Your task to perform on an android device: Go to accessibility settings Image 0: 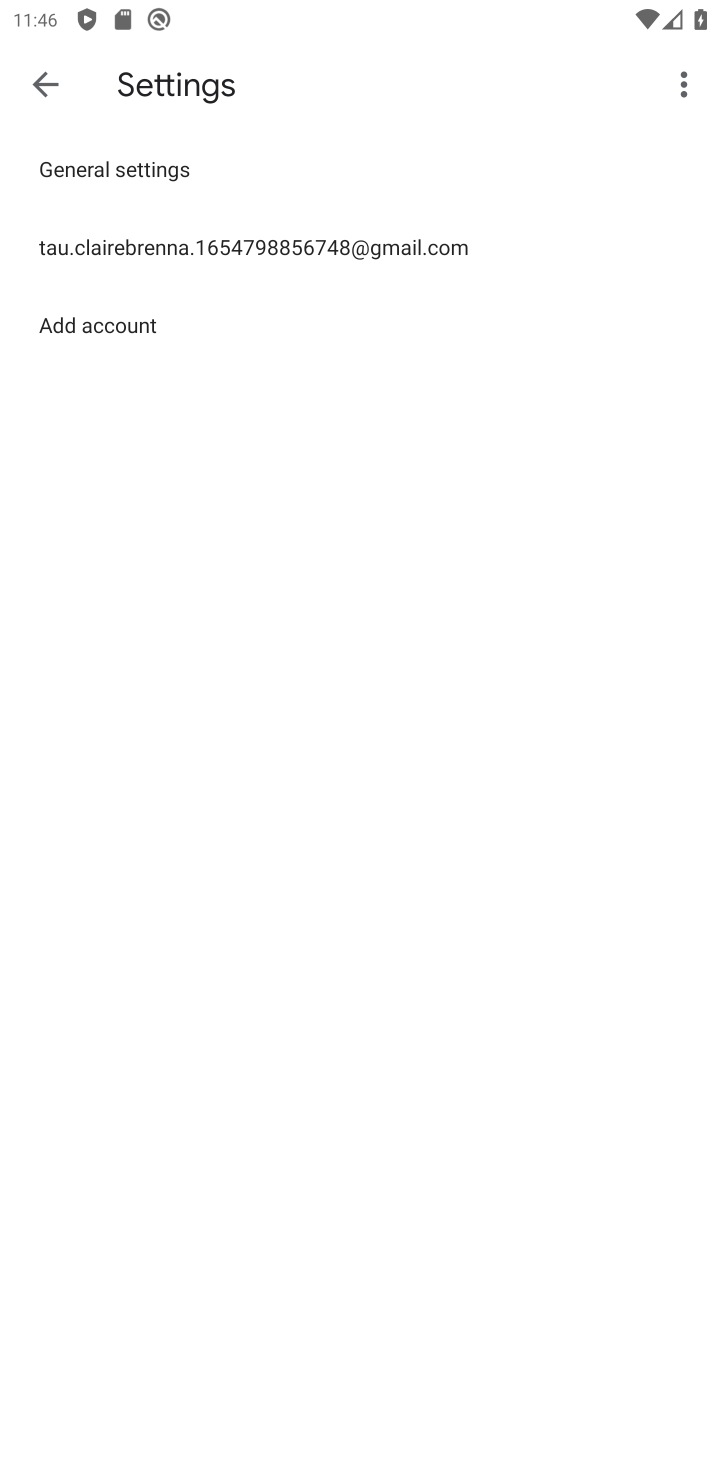
Step 0: press home button
Your task to perform on an android device: Go to accessibility settings Image 1: 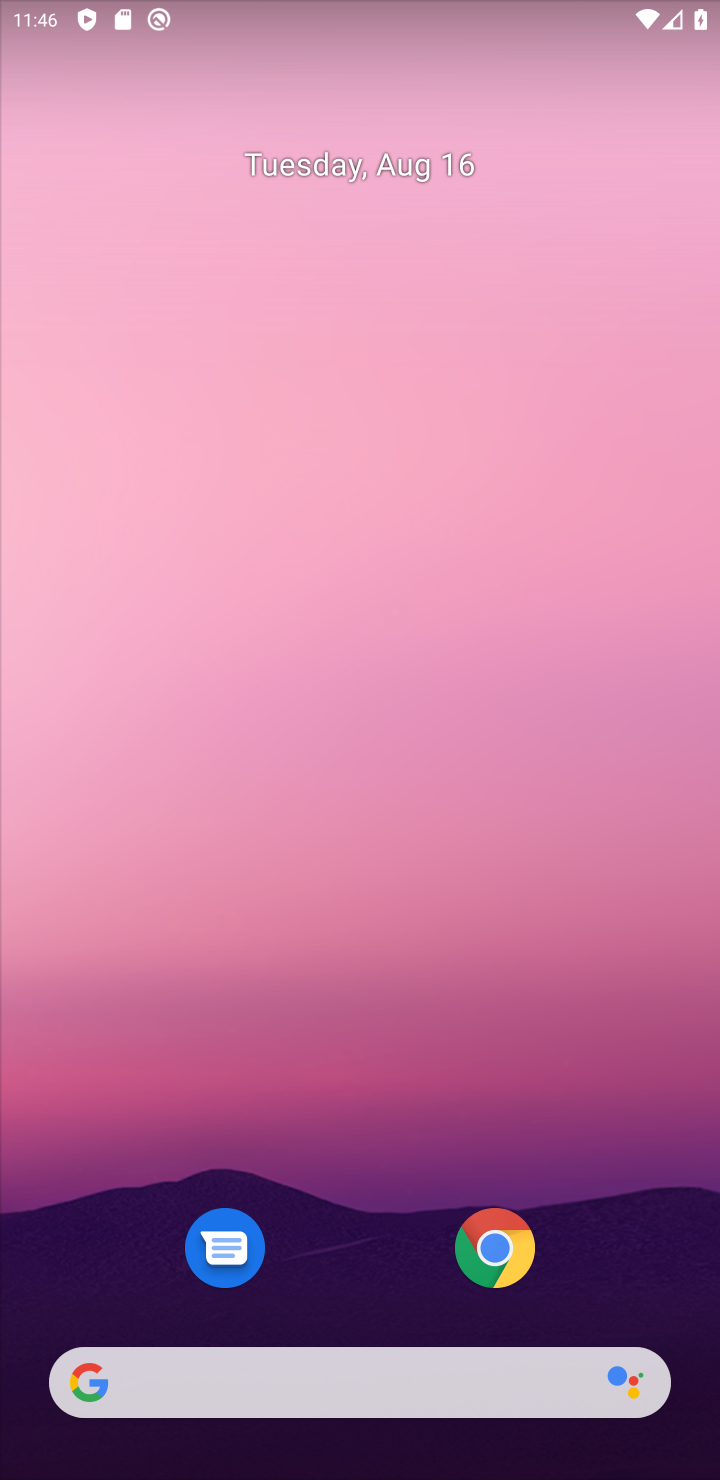
Step 1: drag from (311, 1122) to (458, 275)
Your task to perform on an android device: Go to accessibility settings Image 2: 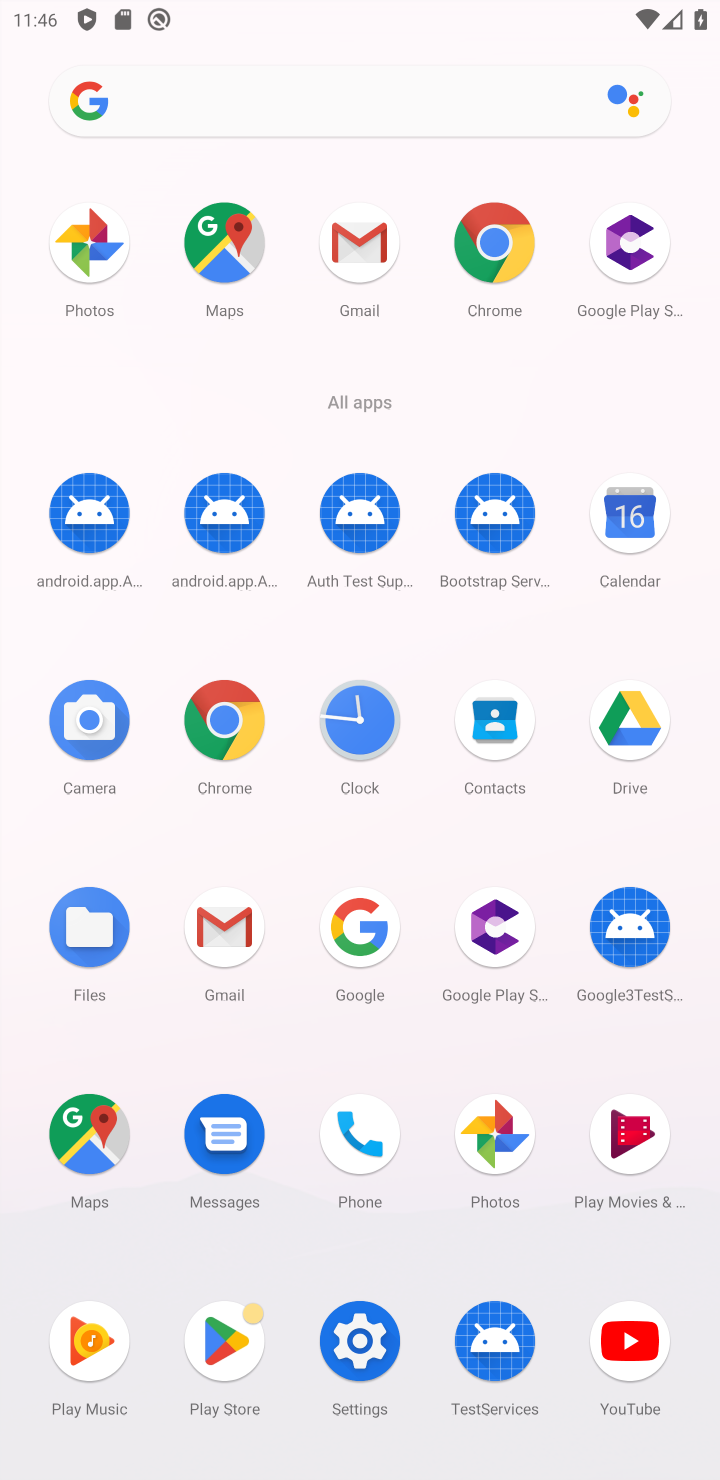
Step 2: click (354, 1353)
Your task to perform on an android device: Go to accessibility settings Image 3: 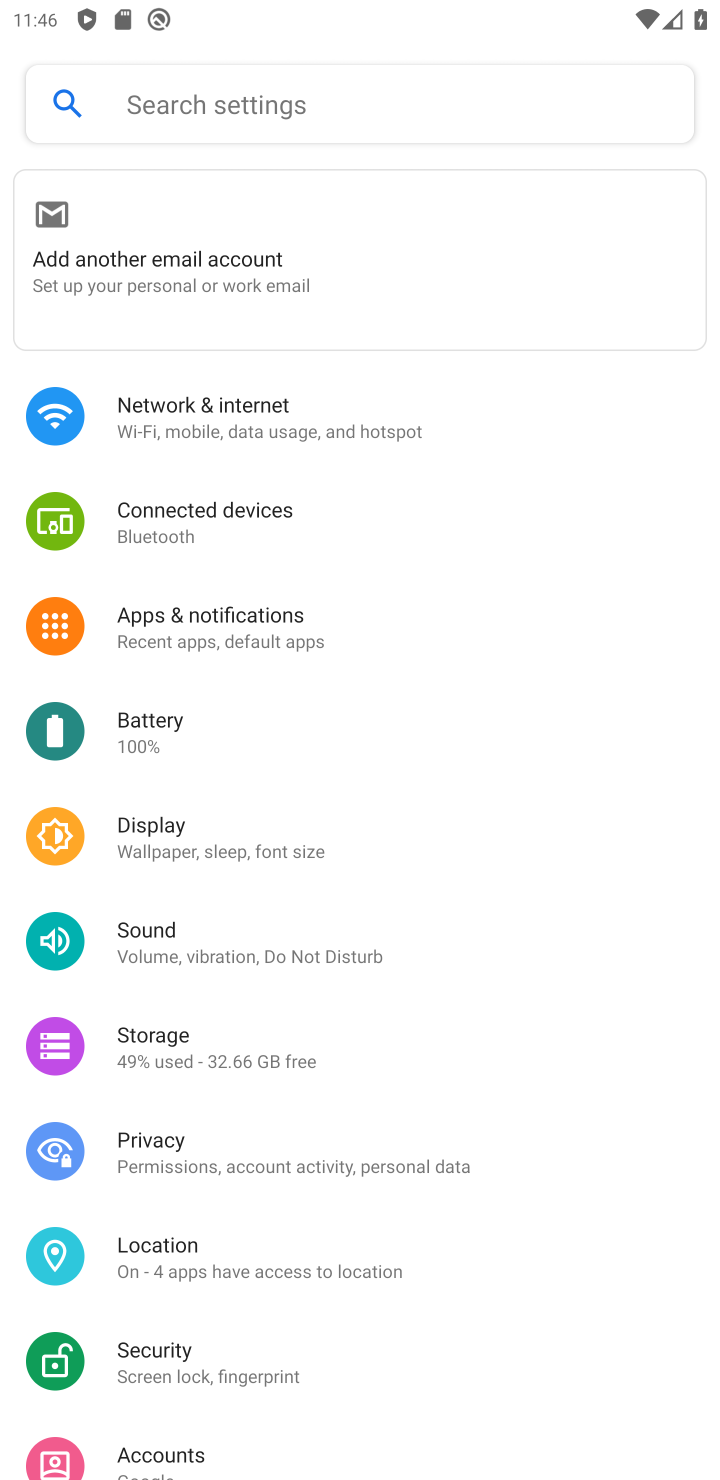
Step 3: drag from (279, 1171) to (271, 668)
Your task to perform on an android device: Go to accessibility settings Image 4: 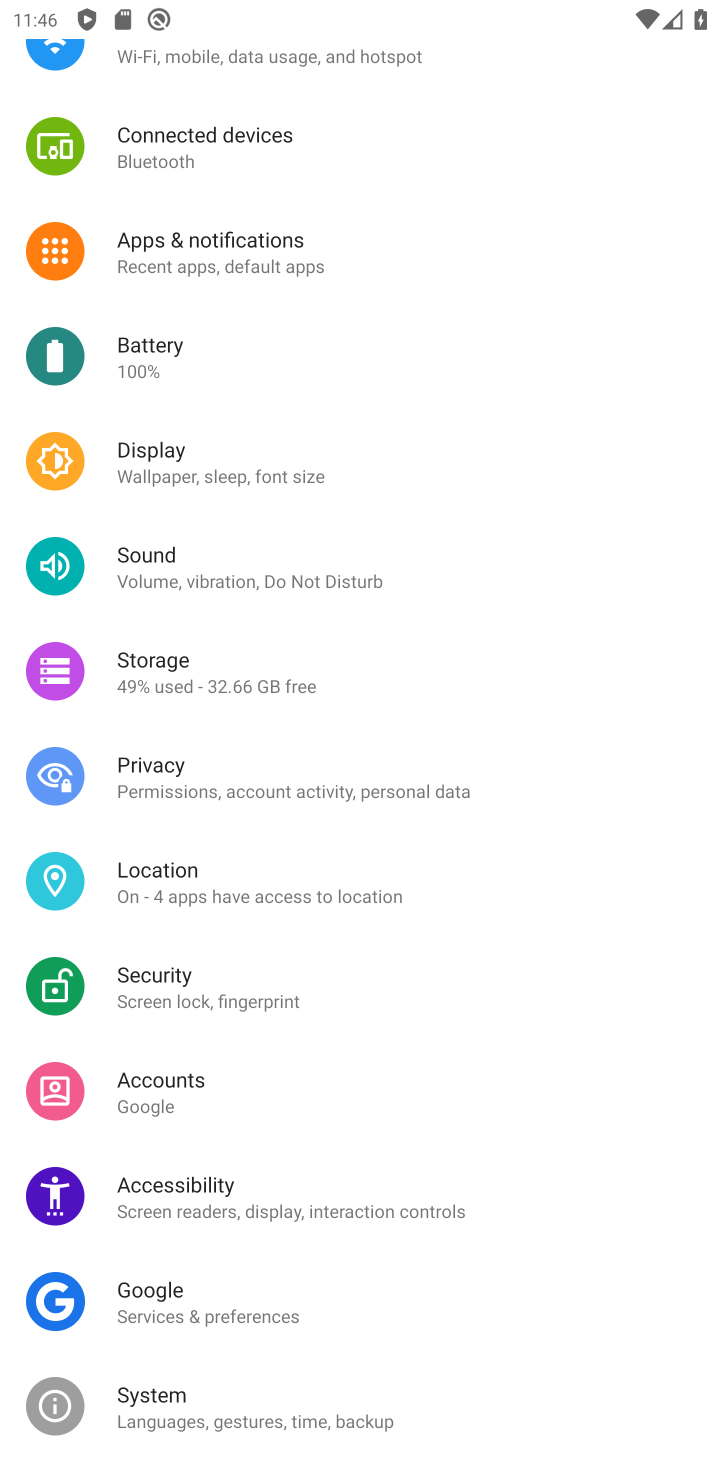
Step 4: click (229, 1185)
Your task to perform on an android device: Go to accessibility settings Image 5: 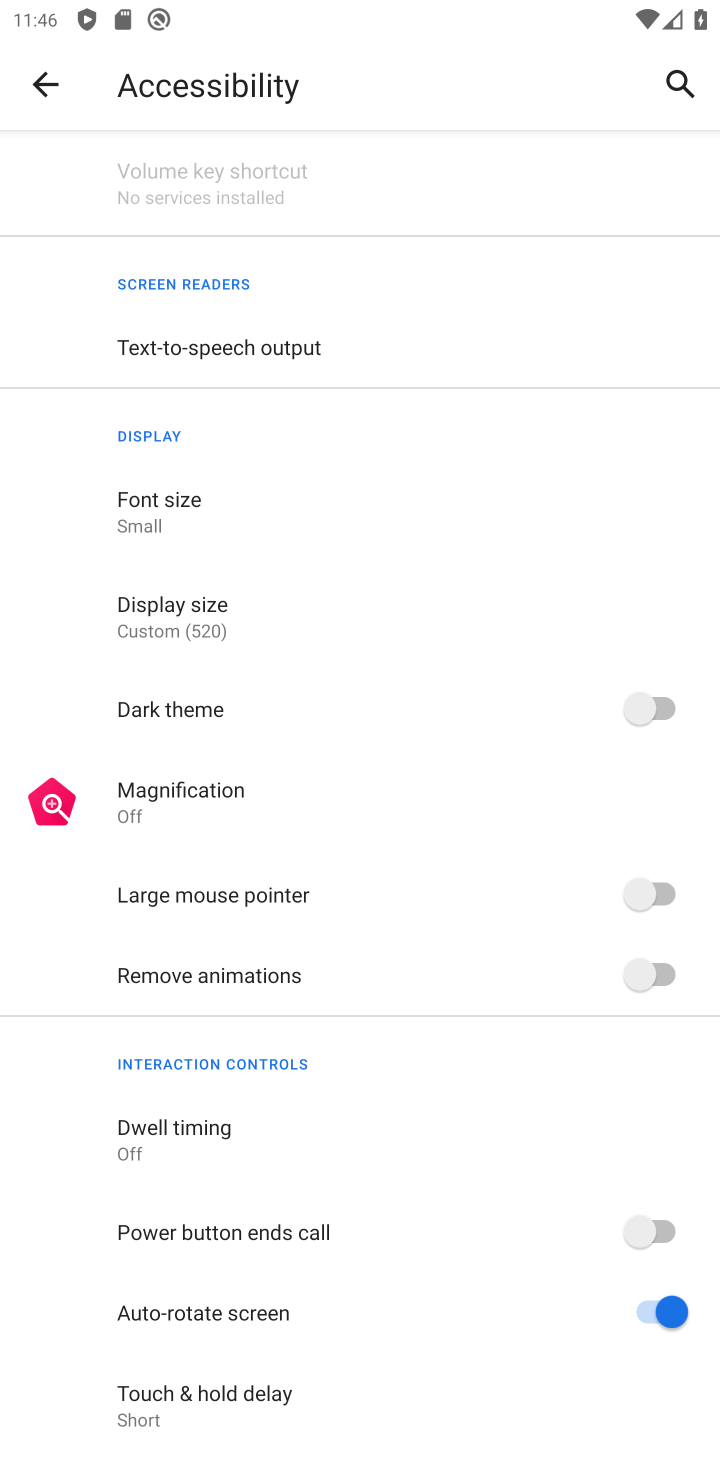
Step 5: task complete